Your task to perform on an android device: check android version Image 0: 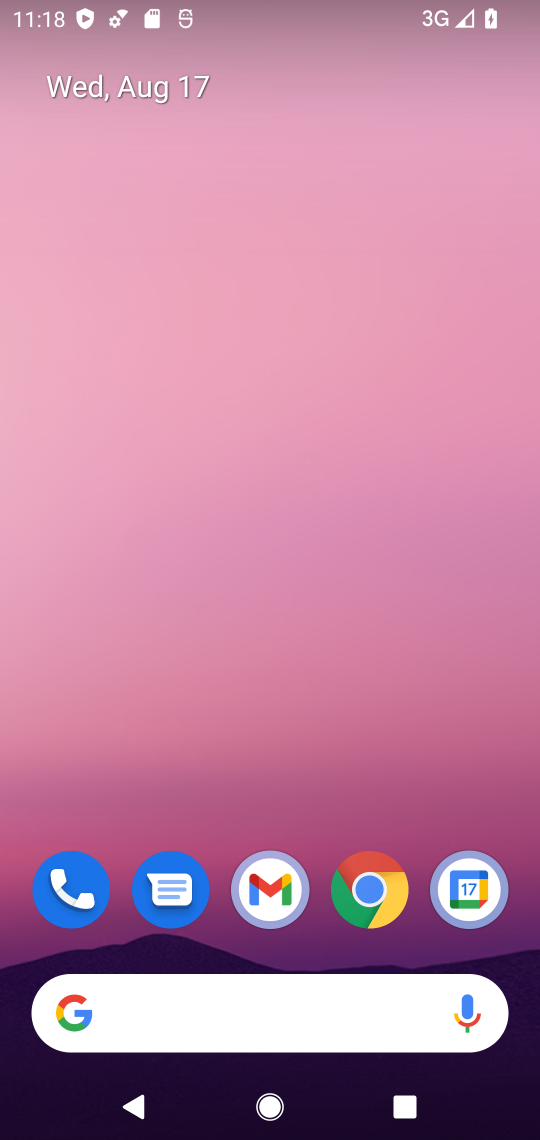
Step 0: drag from (324, 791) to (381, 0)
Your task to perform on an android device: check android version Image 1: 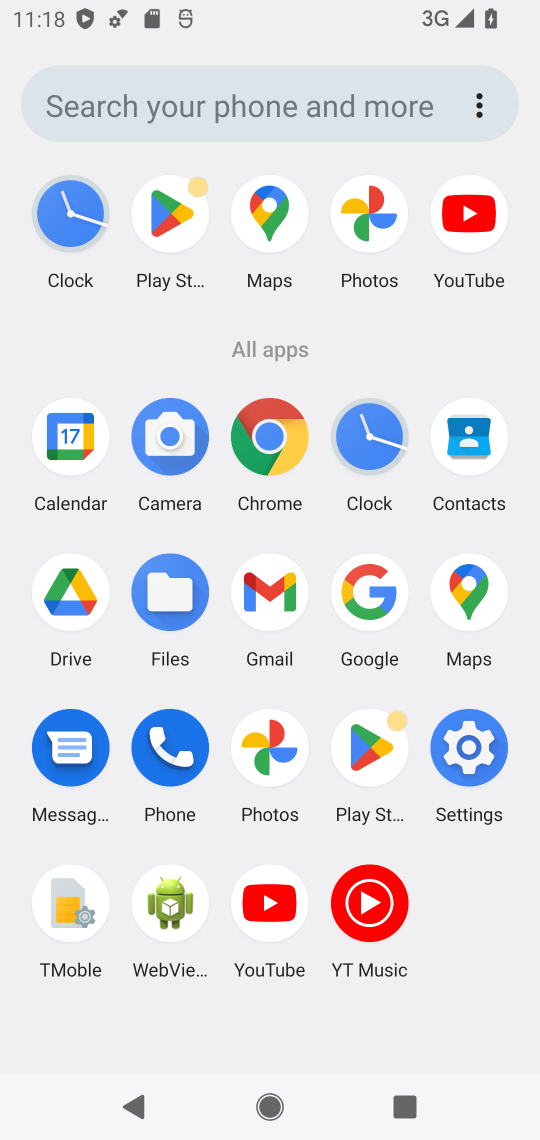
Step 1: click (463, 747)
Your task to perform on an android device: check android version Image 2: 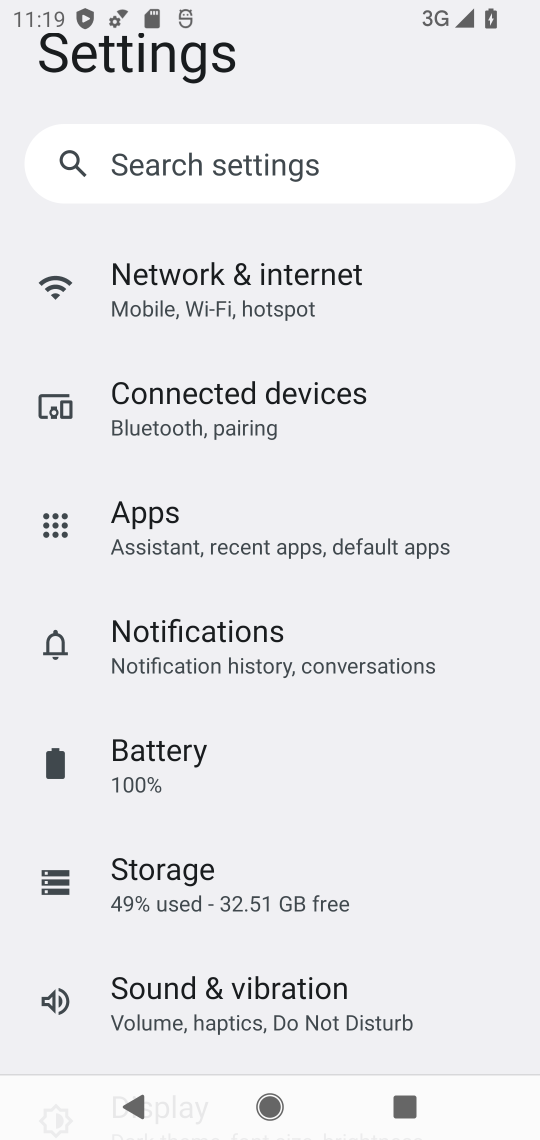
Step 2: drag from (301, 931) to (340, 22)
Your task to perform on an android device: check android version Image 3: 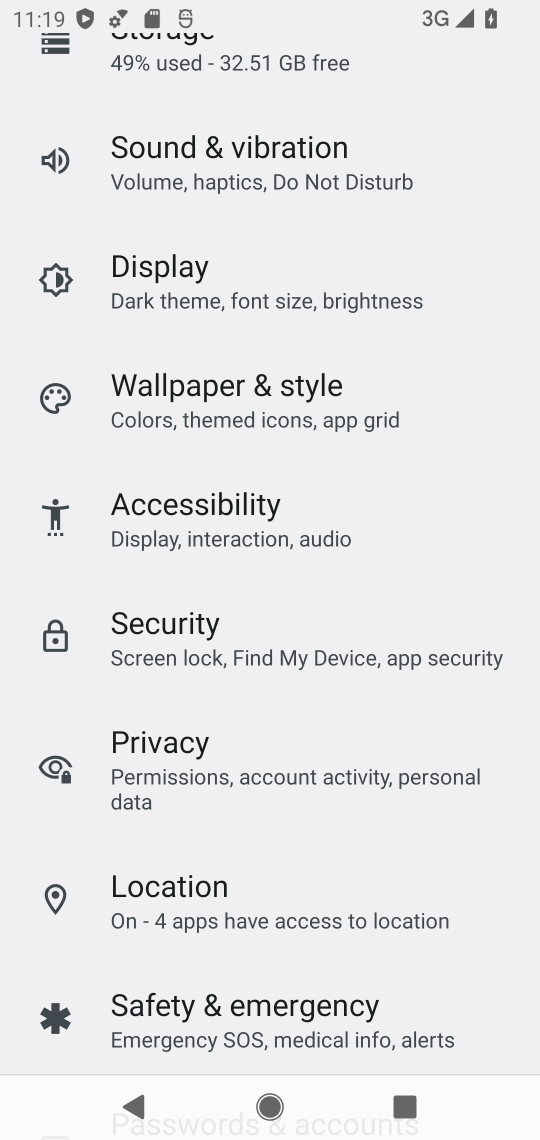
Step 3: drag from (276, 793) to (274, 111)
Your task to perform on an android device: check android version Image 4: 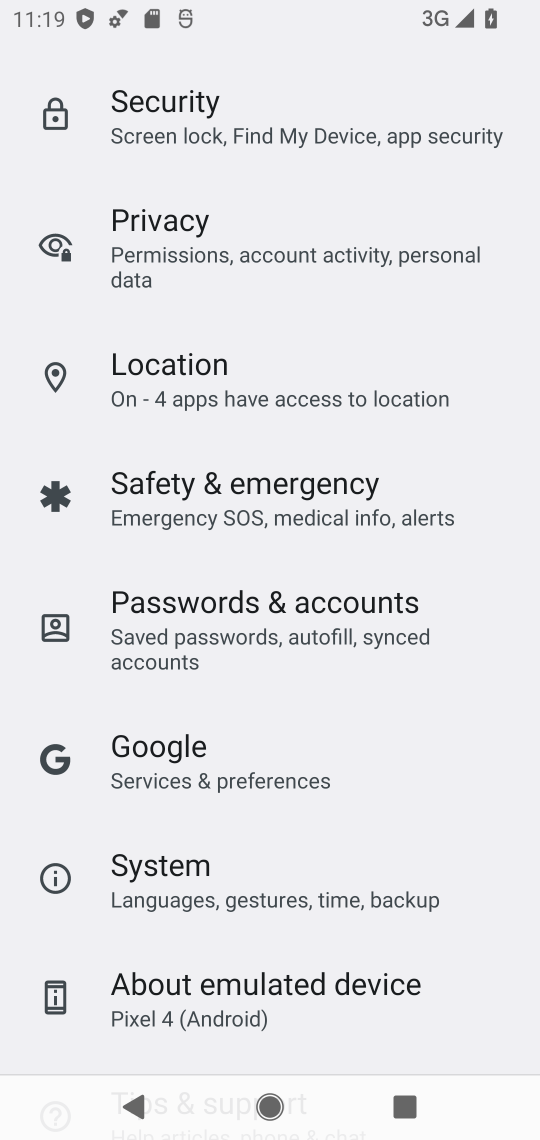
Step 4: click (299, 1006)
Your task to perform on an android device: check android version Image 5: 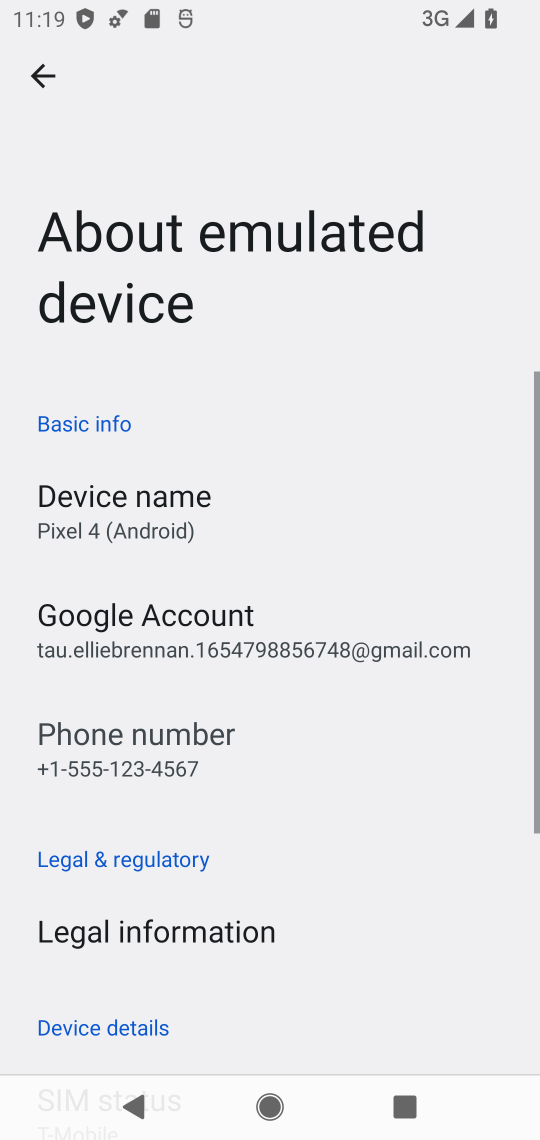
Step 5: drag from (338, 441) to (338, 254)
Your task to perform on an android device: check android version Image 6: 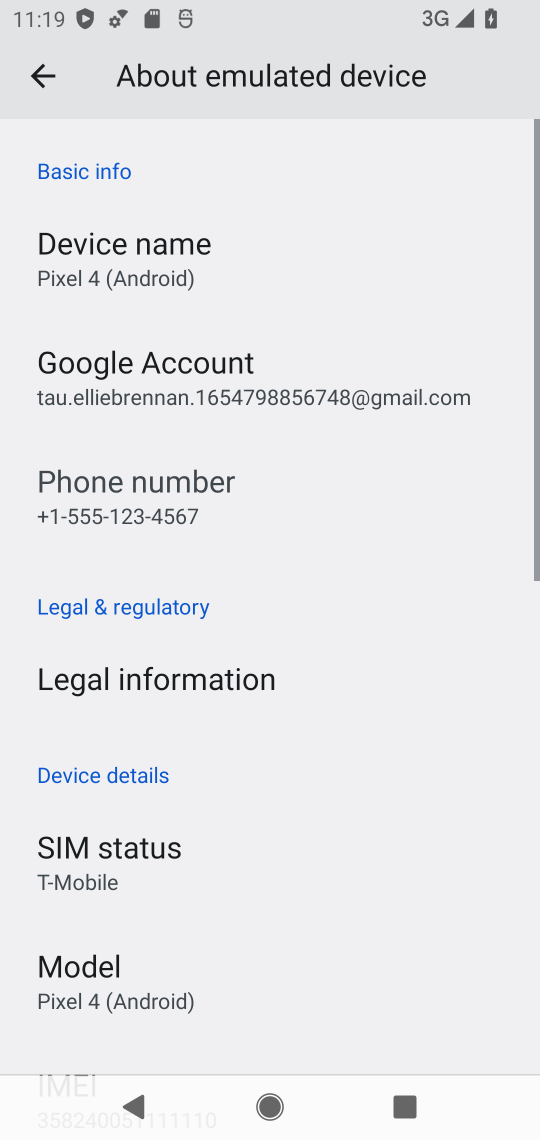
Step 6: drag from (254, 816) to (289, 167)
Your task to perform on an android device: check android version Image 7: 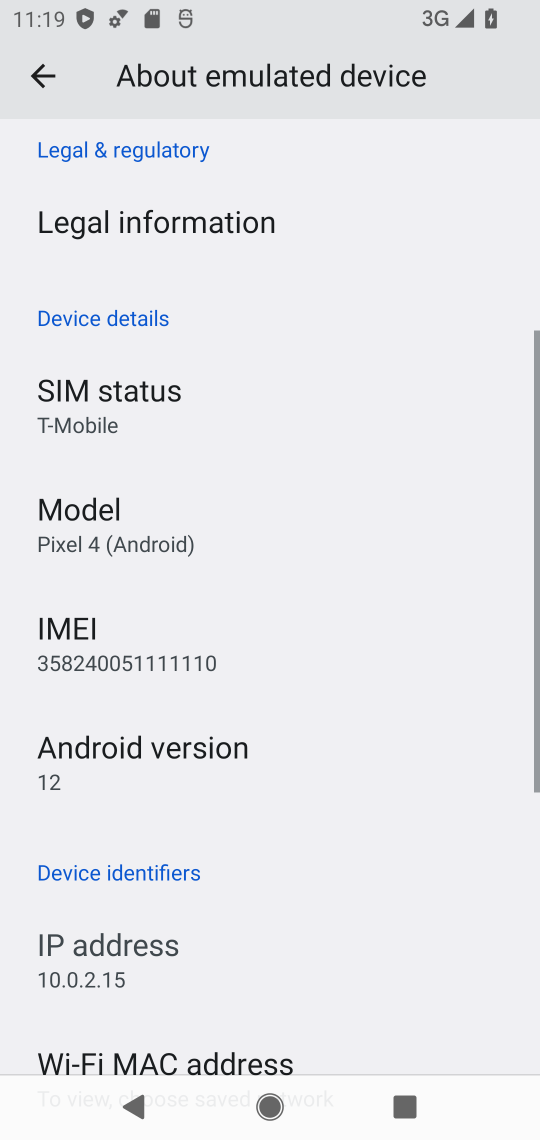
Step 7: click (148, 747)
Your task to perform on an android device: check android version Image 8: 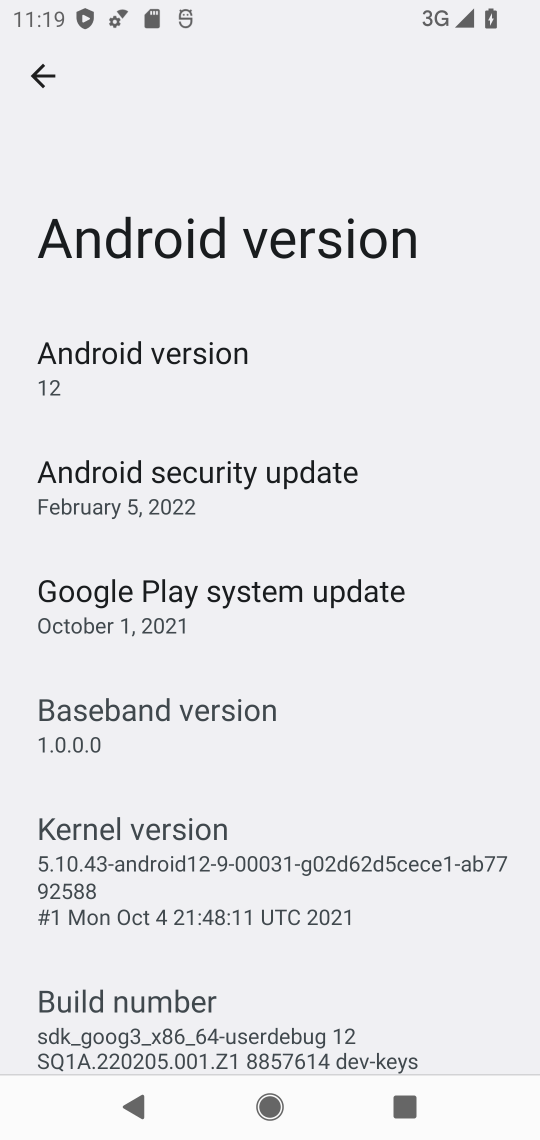
Step 8: task complete